Your task to perform on an android device: Open Reddit.com Image 0: 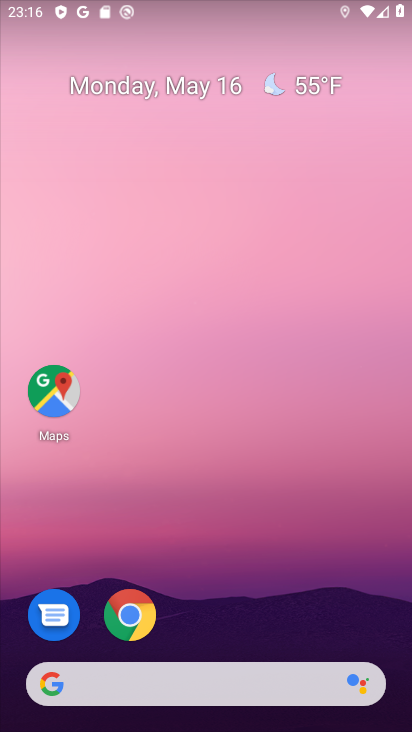
Step 0: click (148, 635)
Your task to perform on an android device: Open Reddit.com Image 1: 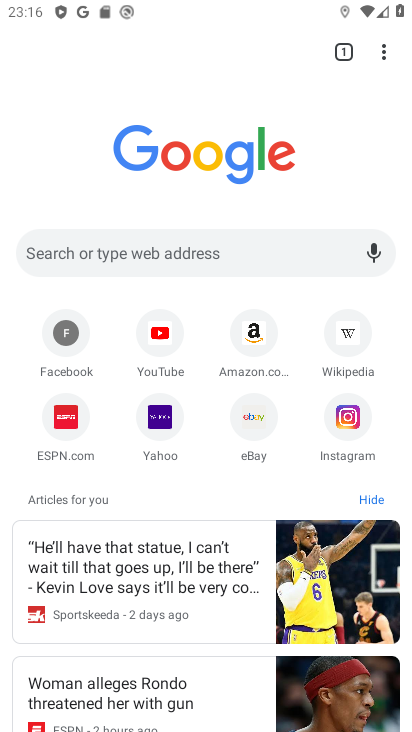
Step 1: click (183, 258)
Your task to perform on an android device: Open Reddit.com Image 2: 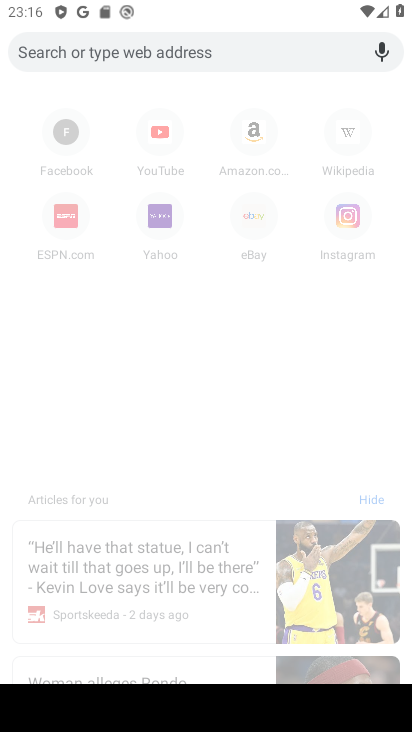
Step 2: type "reddit"
Your task to perform on an android device: Open Reddit.com Image 3: 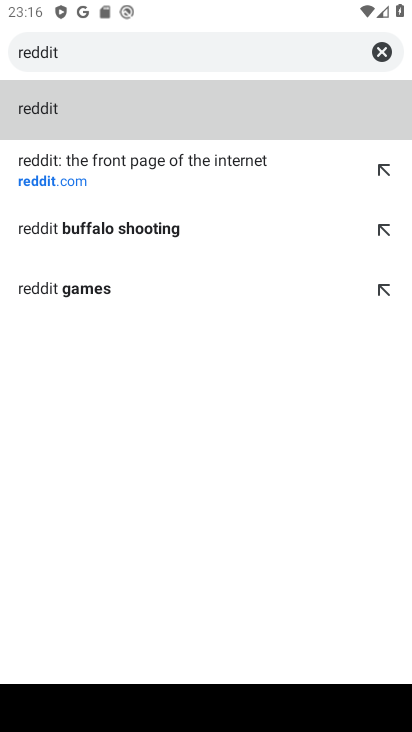
Step 3: click (78, 182)
Your task to perform on an android device: Open Reddit.com Image 4: 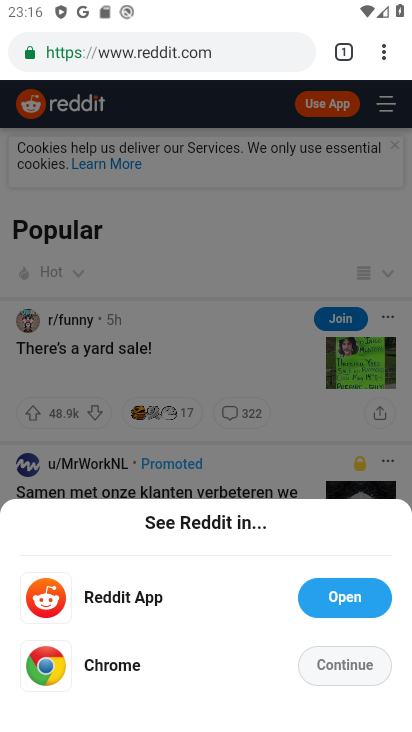
Step 4: click (332, 681)
Your task to perform on an android device: Open Reddit.com Image 5: 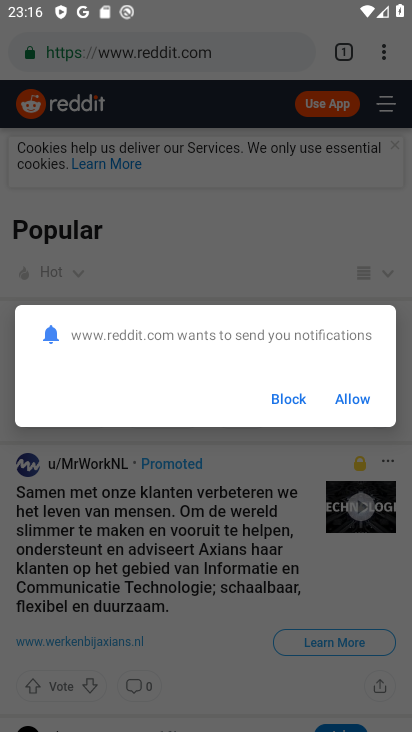
Step 5: click (366, 406)
Your task to perform on an android device: Open Reddit.com Image 6: 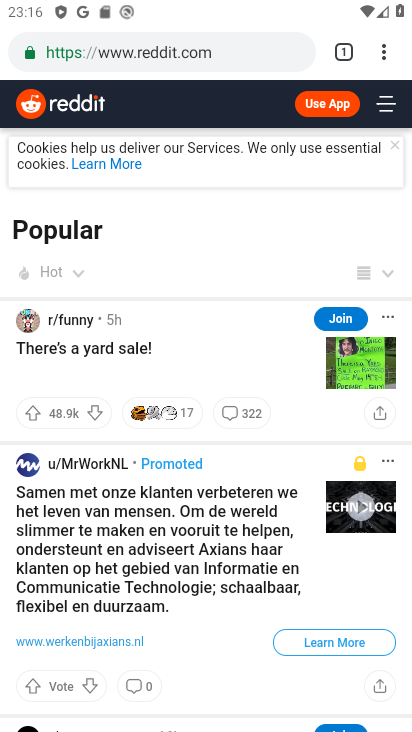
Step 6: task complete